Your task to perform on an android device: remove spam from my inbox in the gmail app Image 0: 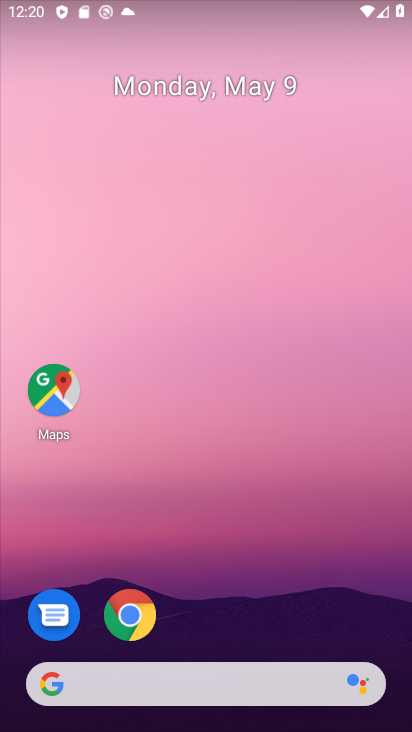
Step 0: drag from (261, 599) to (307, 93)
Your task to perform on an android device: remove spam from my inbox in the gmail app Image 1: 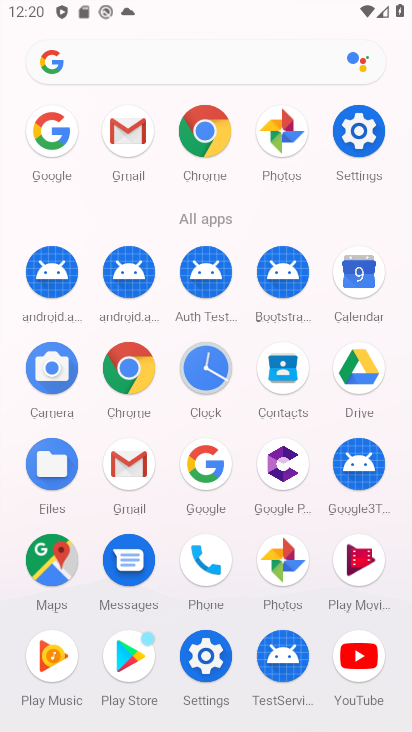
Step 1: click (126, 135)
Your task to perform on an android device: remove spam from my inbox in the gmail app Image 2: 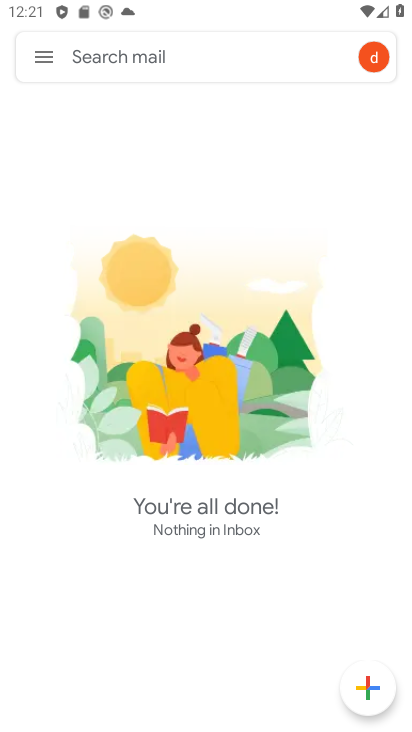
Step 2: click (40, 55)
Your task to perform on an android device: remove spam from my inbox in the gmail app Image 3: 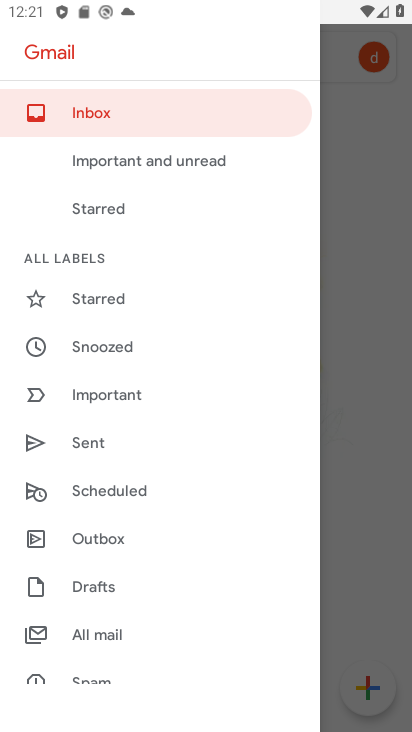
Step 3: drag from (113, 466) to (135, 390)
Your task to perform on an android device: remove spam from my inbox in the gmail app Image 4: 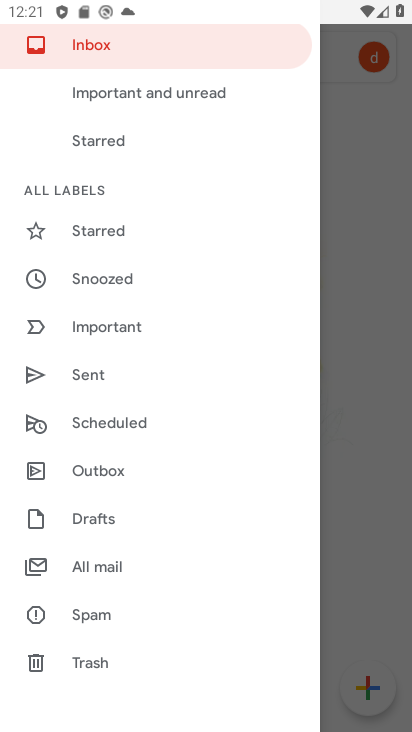
Step 4: drag from (115, 449) to (168, 371)
Your task to perform on an android device: remove spam from my inbox in the gmail app Image 5: 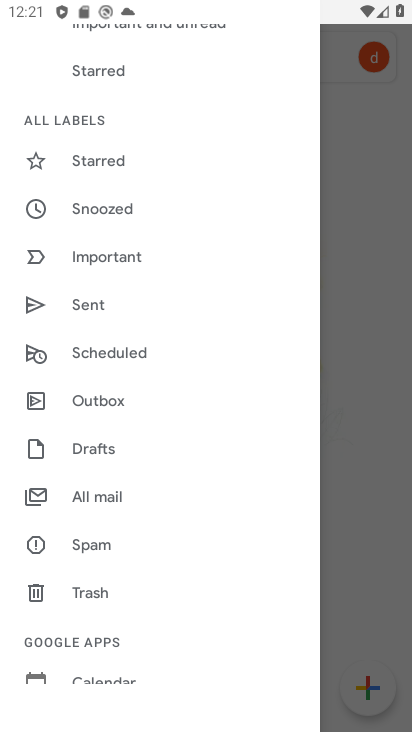
Step 5: drag from (106, 478) to (131, 405)
Your task to perform on an android device: remove spam from my inbox in the gmail app Image 6: 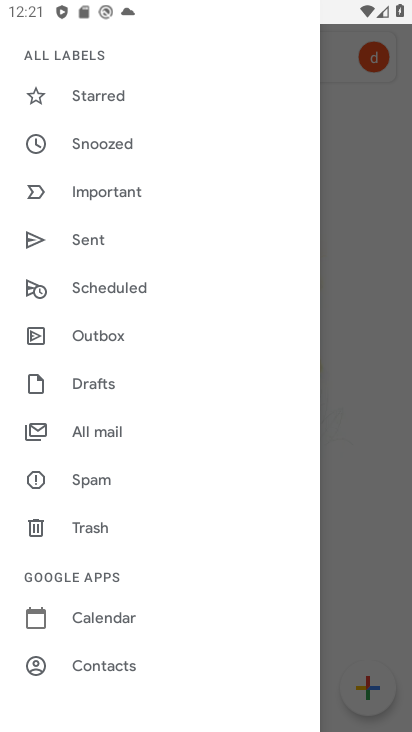
Step 6: drag from (101, 453) to (137, 376)
Your task to perform on an android device: remove spam from my inbox in the gmail app Image 7: 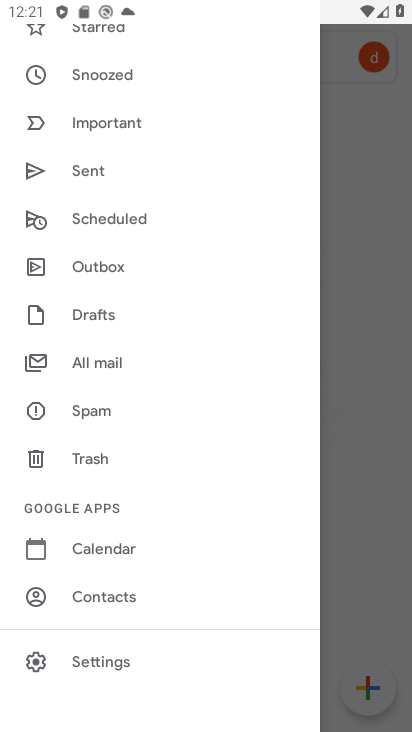
Step 7: click (106, 408)
Your task to perform on an android device: remove spam from my inbox in the gmail app Image 8: 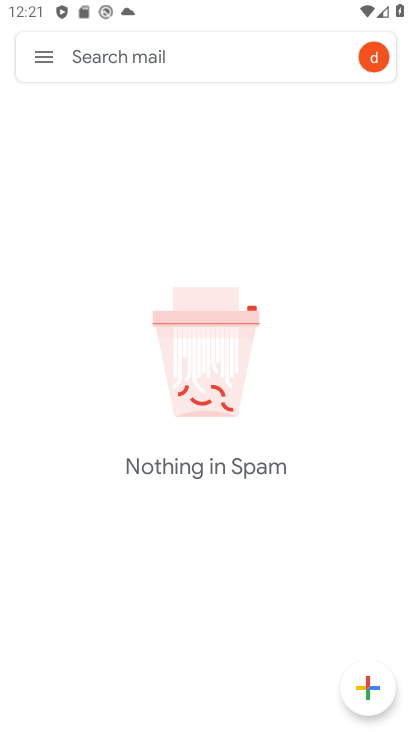
Step 8: task complete